Your task to perform on an android device: Show me recent news Image 0: 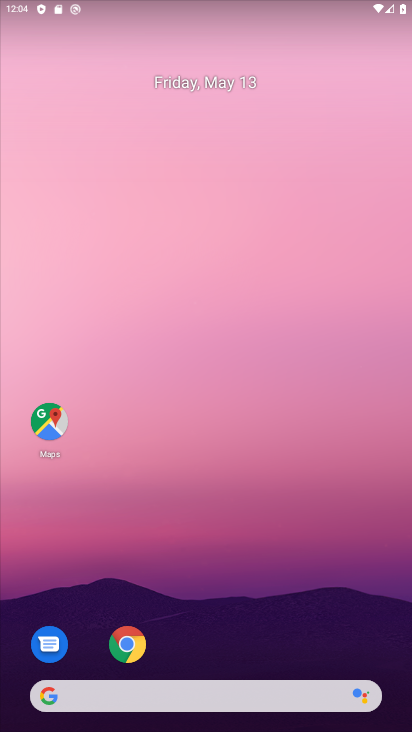
Step 0: click (200, 689)
Your task to perform on an android device: Show me recent news Image 1: 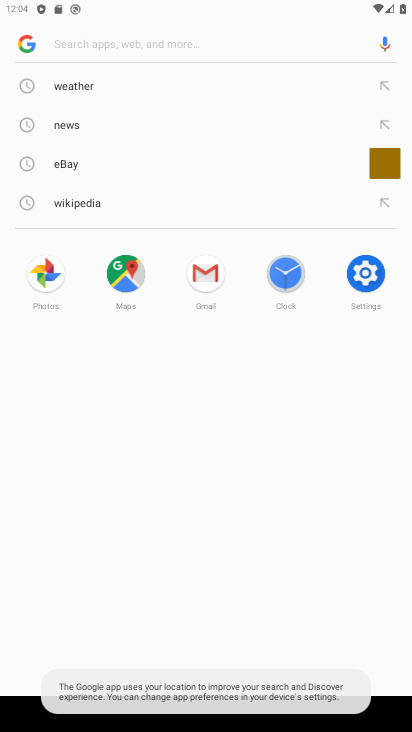
Step 1: click (216, 34)
Your task to perform on an android device: Show me recent news Image 2: 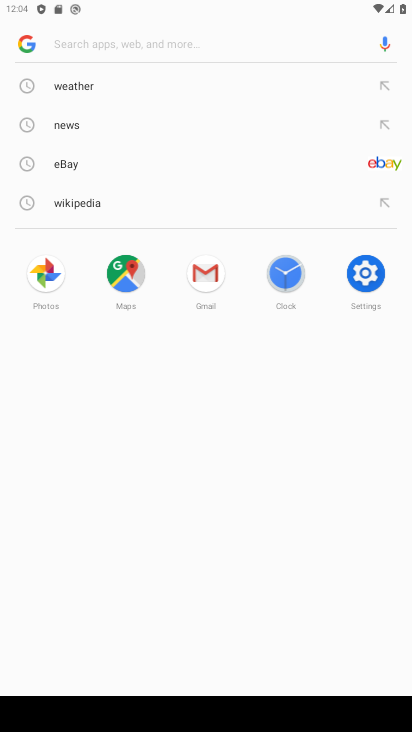
Step 2: type "recent news"
Your task to perform on an android device: Show me recent news Image 3: 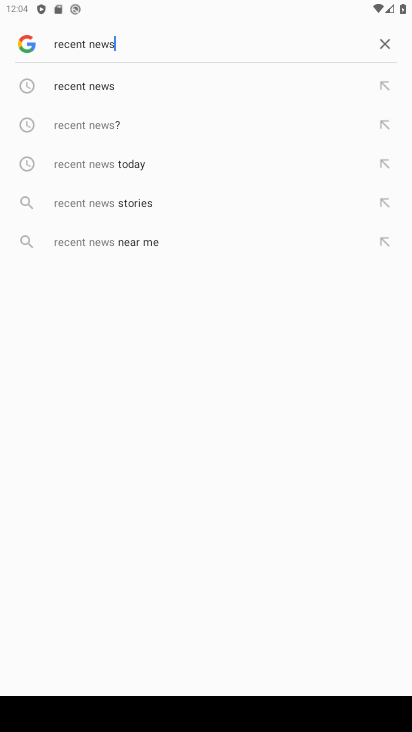
Step 3: click (93, 74)
Your task to perform on an android device: Show me recent news Image 4: 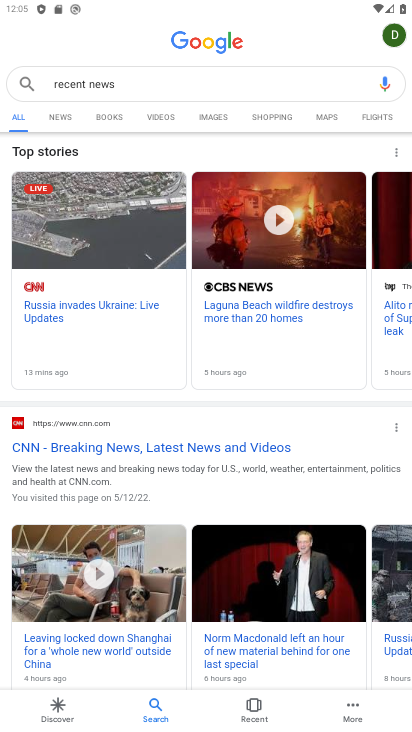
Step 4: click (55, 115)
Your task to perform on an android device: Show me recent news Image 5: 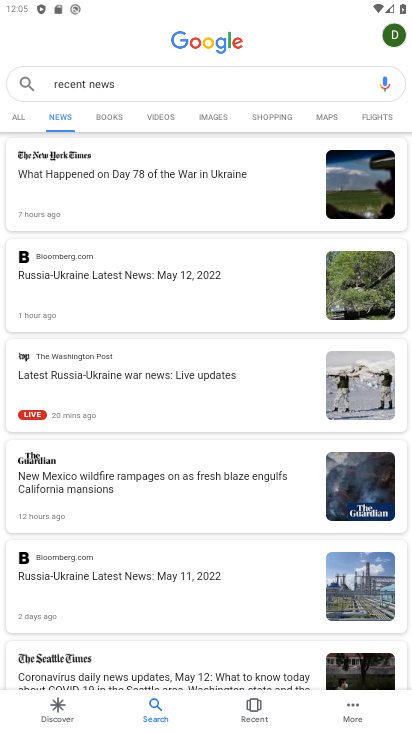
Step 5: task complete